Your task to perform on an android device: open wifi settings Image 0: 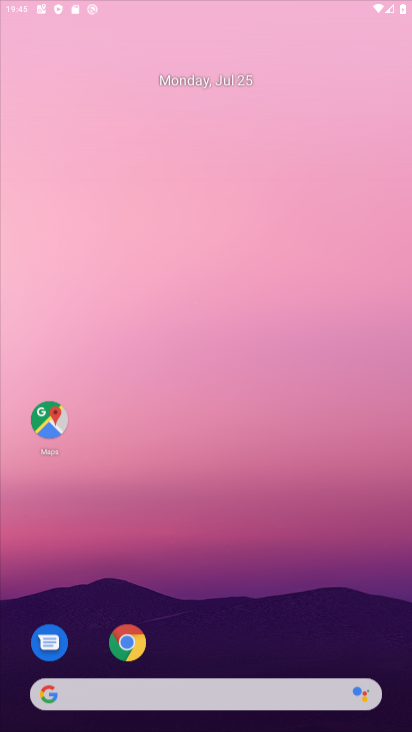
Step 0: press home button
Your task to perform on an android device: open wifi settings Image 1: 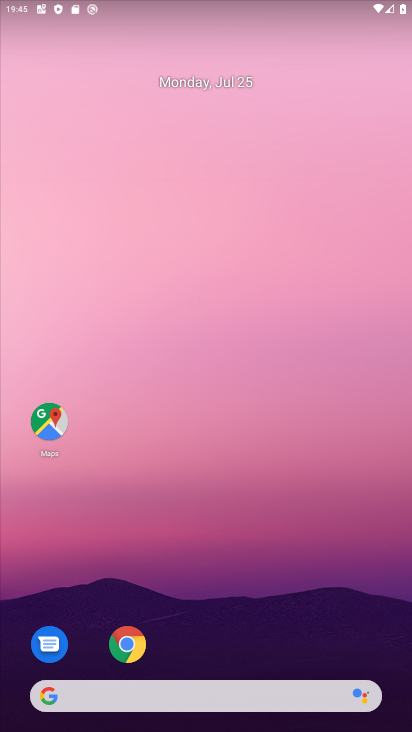
Step 1: drag from (218, 656) to (242, 2)
Your task to perform on an android device: open wifi settings Image 2: 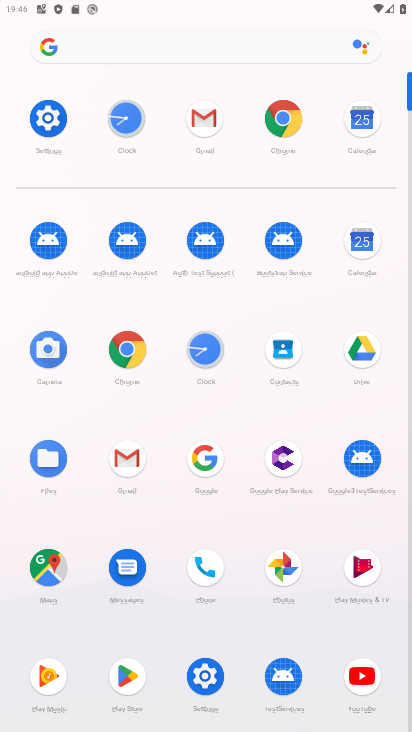
Step 2: click (45, 111)
Your task to perform on an android device: open wifi settings Image 3: 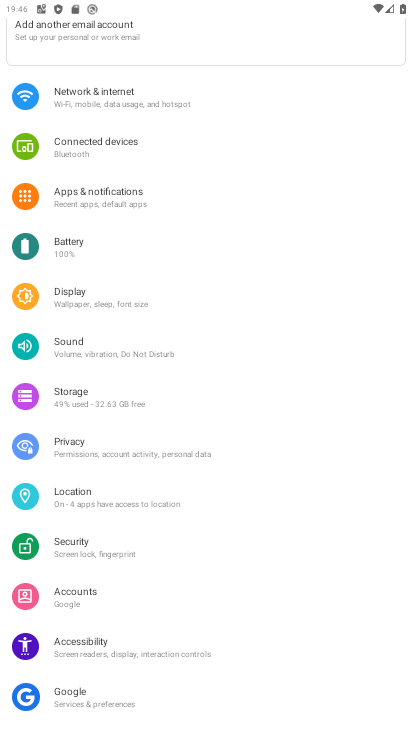
Step 3: click (155, 88)
Your task to perform on an android device: open wifi settings Image 4: 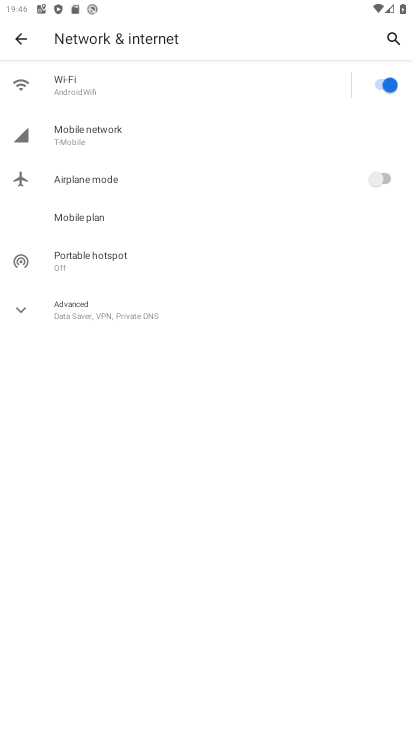
Step 4: click (110, 75)
Your task to perform on an android device: open wifi settings Image 5: 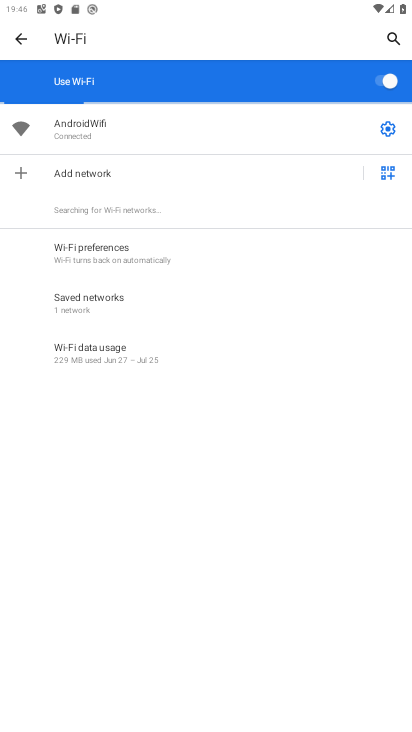
Step 5: task complete